Your task to perform on an android device: delete browsing data in the chrome app Image 0: 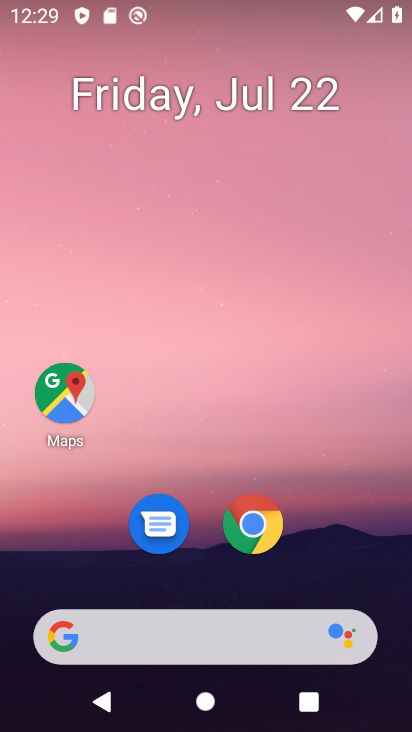
Step 0: press home button
Your task to perform on an android device: delete browsing data in the chrome app Image 1: 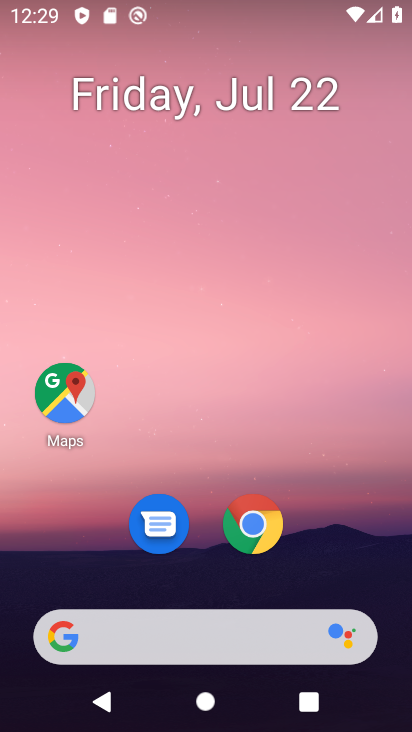
Step 1: click (256, 531)
Your task to perform on an android device: delete browsing data in the chrome app Image 2: 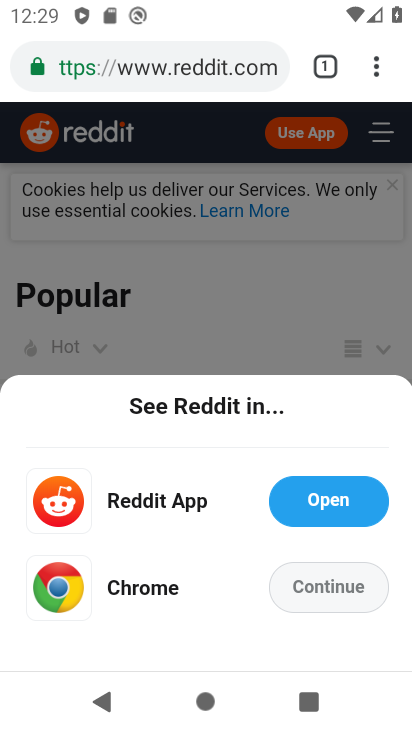
Step 2: drag from (374, 63) to (191, 531)
Your task to perform on an android device: delete browsing data in the chrome app Image 3: 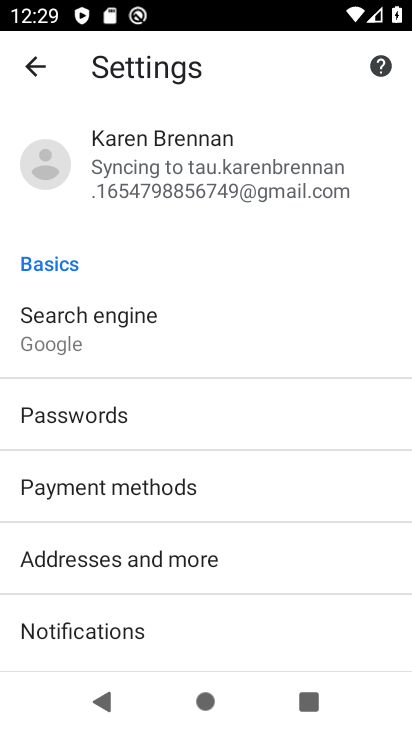
Step 3: drag from (190, 625) to (282, 239)
Your task to perform on an android device: delete browsing data in the chrome app Image 4: 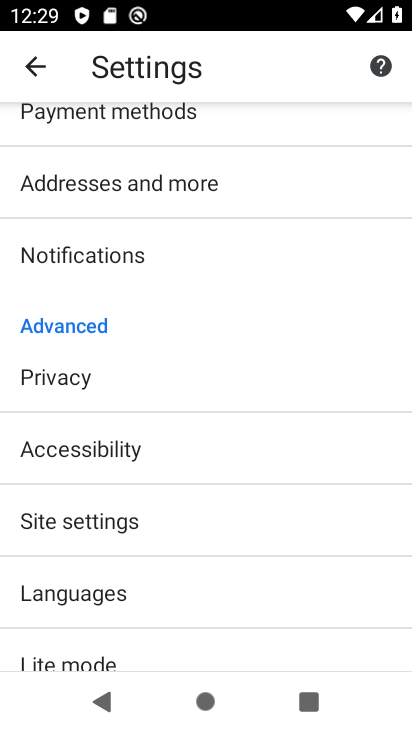
Step 4: click (87, 386)
Your task to perform on an android device: delete browsing data in the chrome app Image 5: 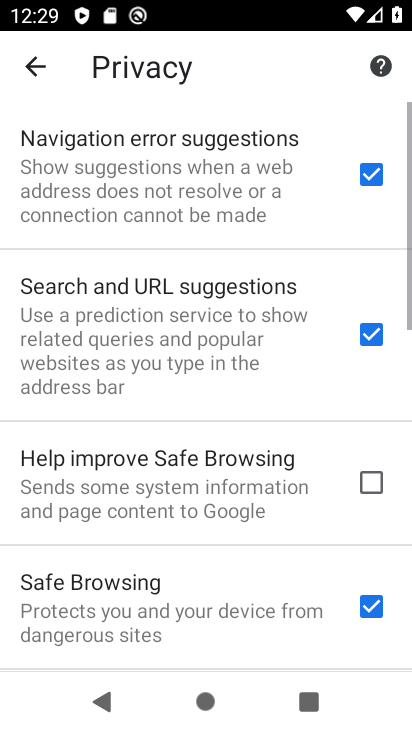
Step 5: click (257, 313)
Your task to perform on an android device: delete browsing data in the chrome app Image 6: 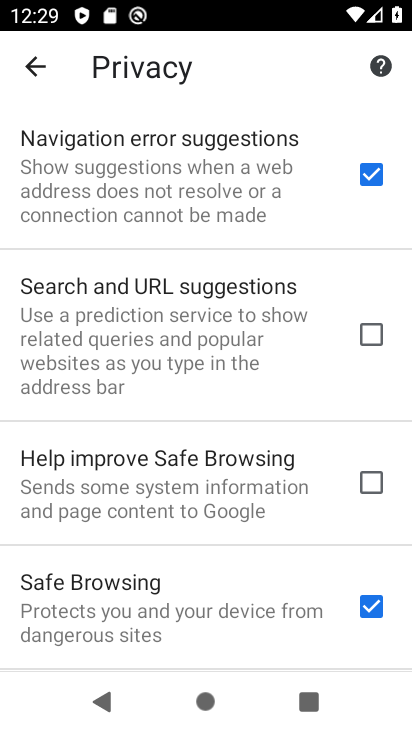
Step 6: drag from (210, 628) to (378, 94)
Your task to perform on an android device: delete browsing data in the chrome app Image 7: 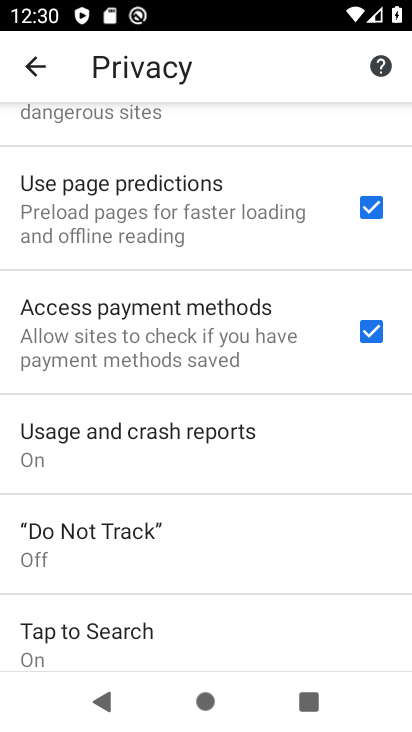
Step 7: drag from (206, 597) to (346, 158)
Your task to perform on an android device: delete browsing data in the chrome app Image 8: 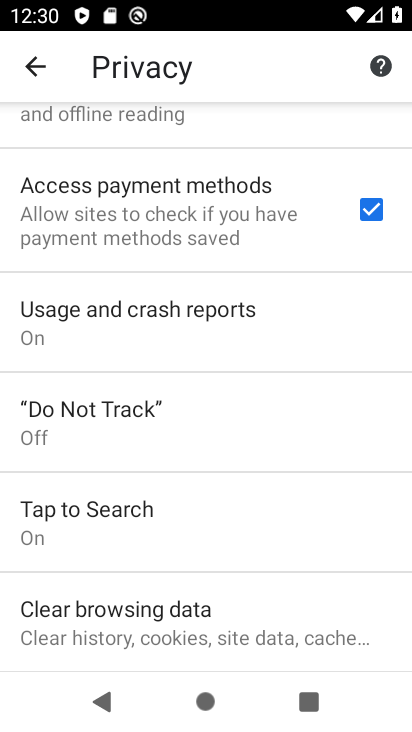
Step 8: click (203, 619)
Your task to perform on an android device: delete browsing data in the chrome app Image 9: 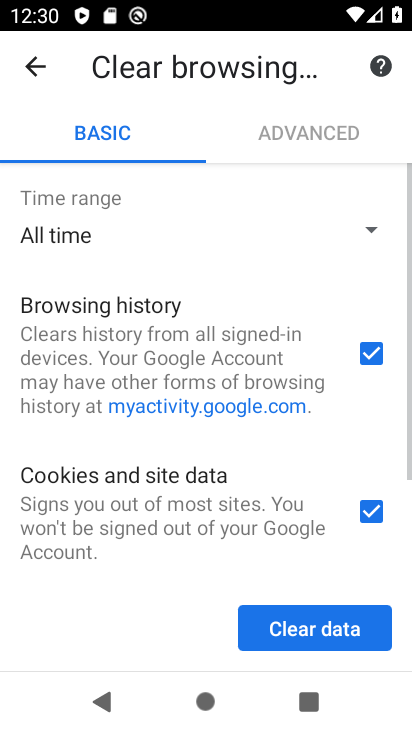
Step 9: drag from (177, 599) to (369, 223)
Your task to perform on an android device: delete browsing data in the chrome app Image 10: 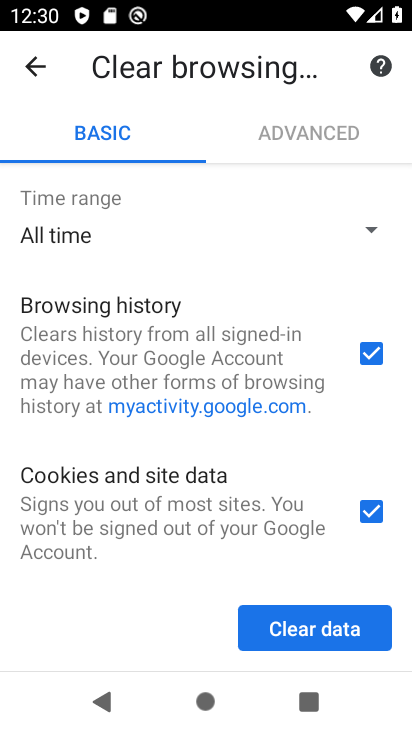
Step 10: drag from (238, 455) to (351, 204)
Your task to perform on an android device: delete browsing data in the chrome app Image 11: 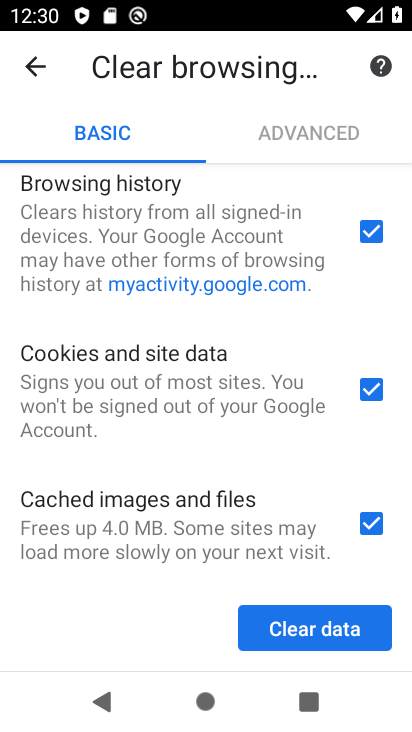
Step 11: click (371, 386)
Your task to perform on an android device: delete browsing data in the chrome app Image 12: 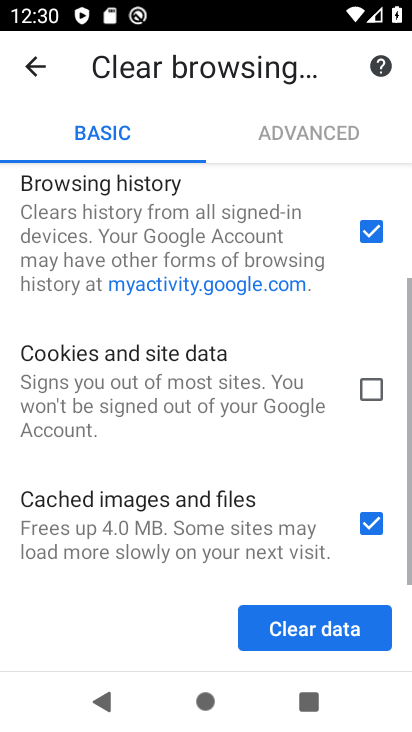
Step 12: click (371, 522)
Your task to perform on an android device: delete browsing data in the chrome app Image 13: 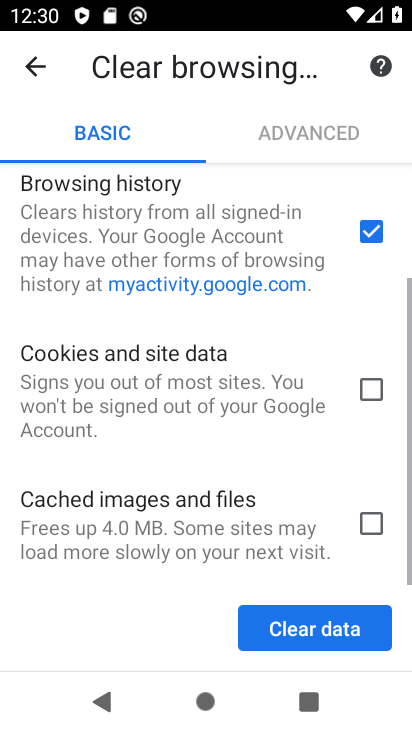
Step 13: click (326, 639)
Your task to perform on an android device: delete browsing data in the chrome app Image 14: 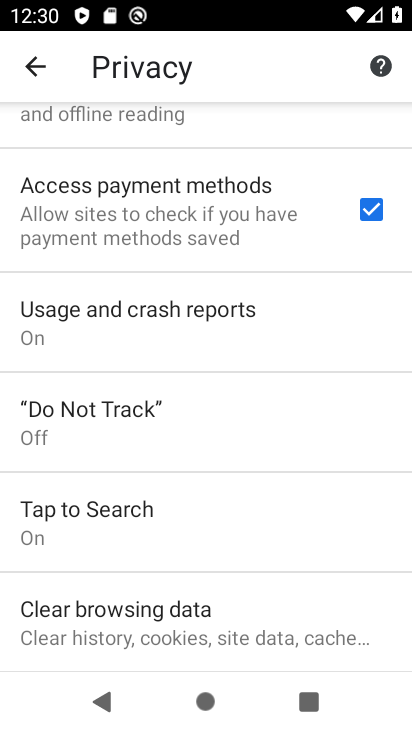
Step 14: task complete